Your task to perform on an android device: Open battery settings Image 0: 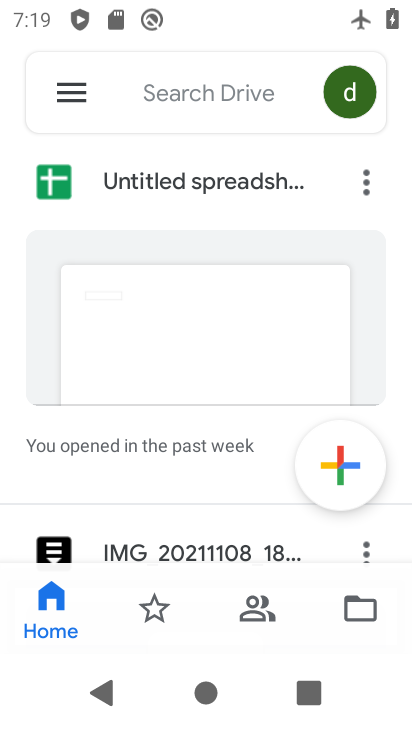
Step 0: press home button
Your task to perform on an android device: Open battery settings Image 1: 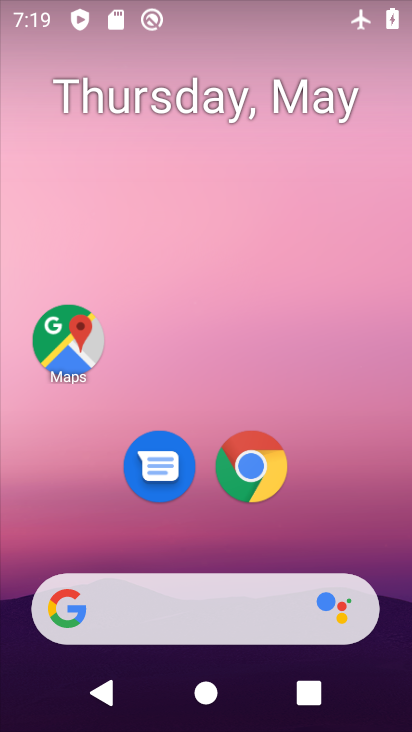
Step 1: drag from (344, 478) to (209, 12)
Your task to perform on an android device: Open battery settings Image 2: 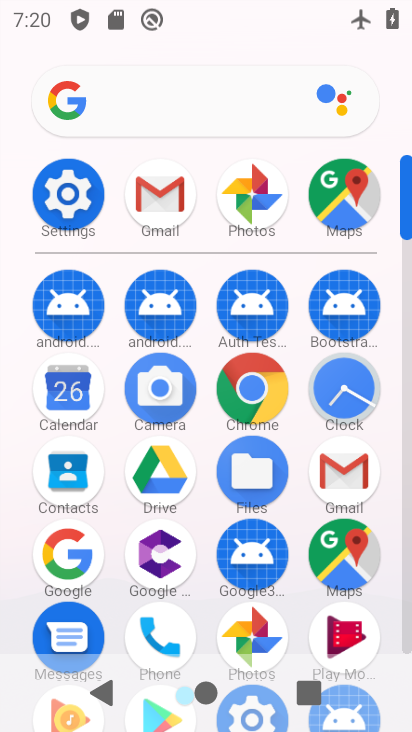
Step 2: click (69, 191)
Your task to perform on an android device: Open battery settings Image 3: 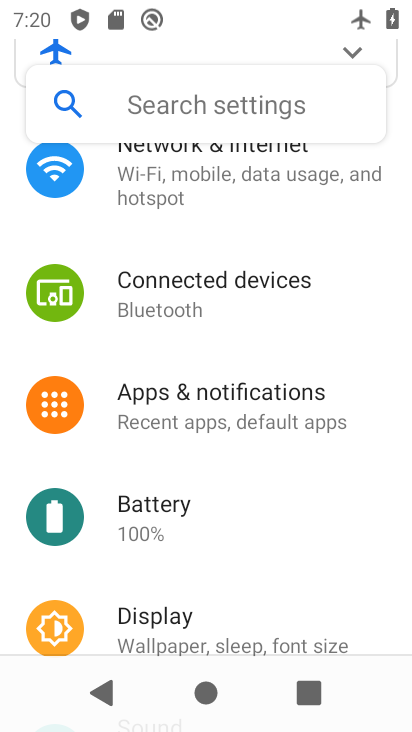
Step 3: click (155, 501)
Your task to perform on an android device: Open battery settings Image 4: 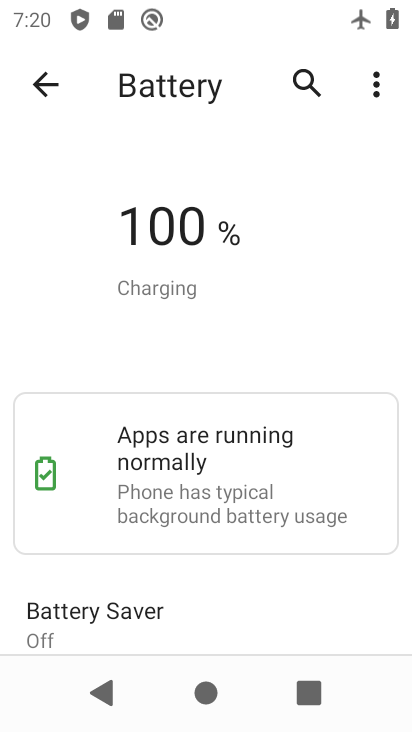
Step 4: task complete